Your task to perform on an android device: empty trash in google photos Image 0: 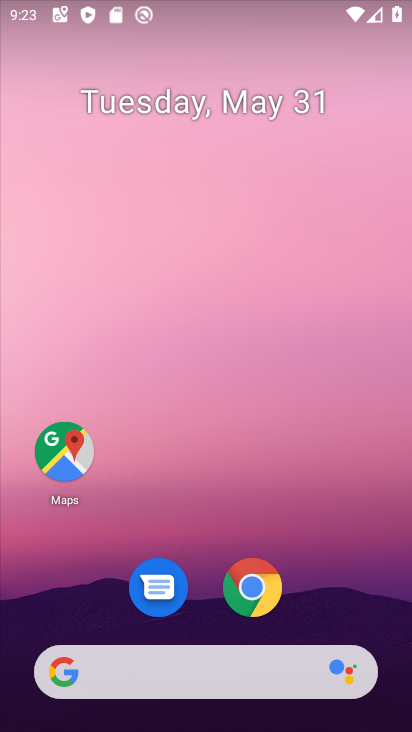
Step 0: drag from (321, 594) to (300, 21)
Your task to perform on an android device: empty trash in google photos Image 1: 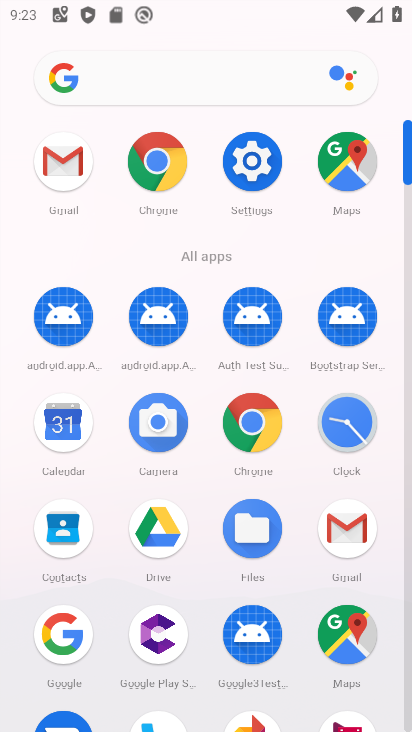
Step 1: drag from (188, 207) to (224, 8)
Your task to perform on an android device: empty trash in google photos Image 2: 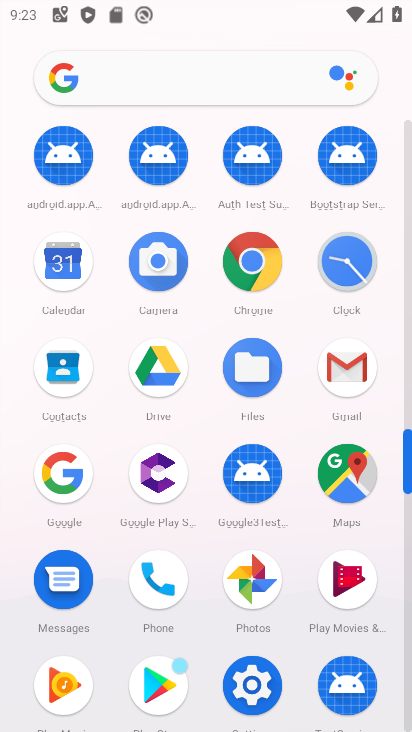
Step 2: click (248, 573)
Your task to perform on an android device: empty trash in google photos Image 3: 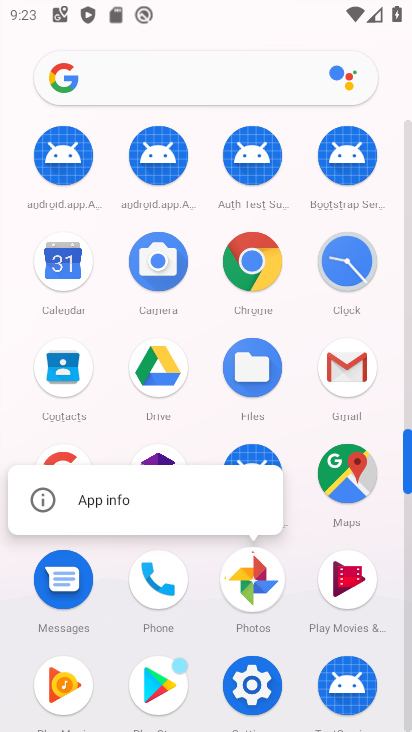
Step 3: click (248, 573)
Your task to perform on an android device: empty trash in google photos Image 4: 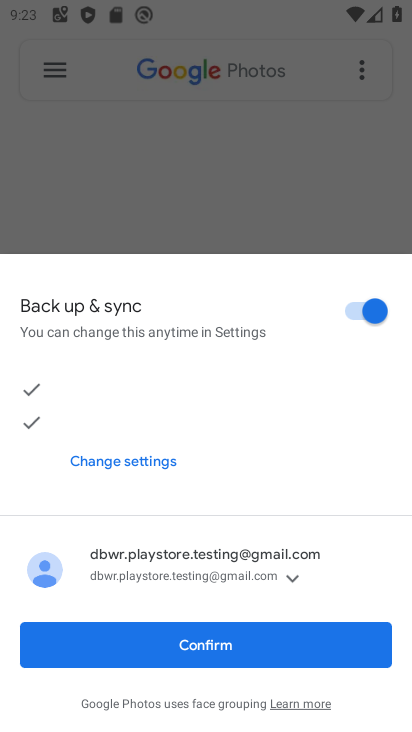
Step 4: click (53, 75)
Your task to perform on an android device: empty trash in google photos Image 5: 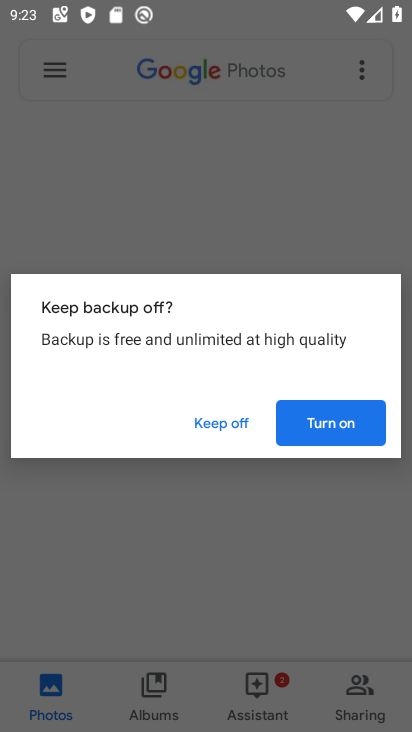
Step 5: click (239, 232)
Your task to perform on an android device: empty trash in google photos Image 6: 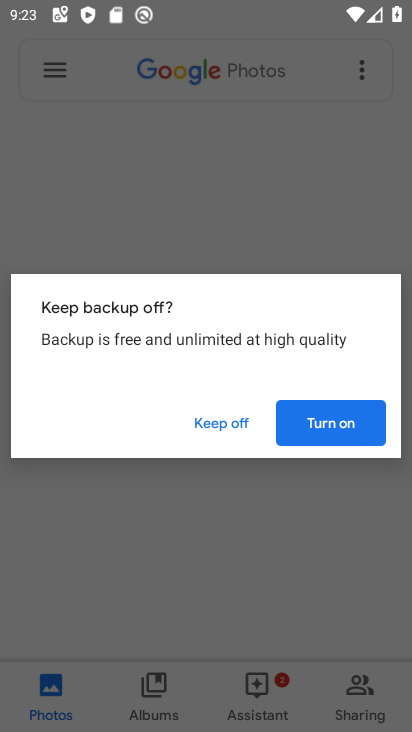
Step 6: click (313, 414)
Your task to perform on an android device: empty trash in google photos Image 7: 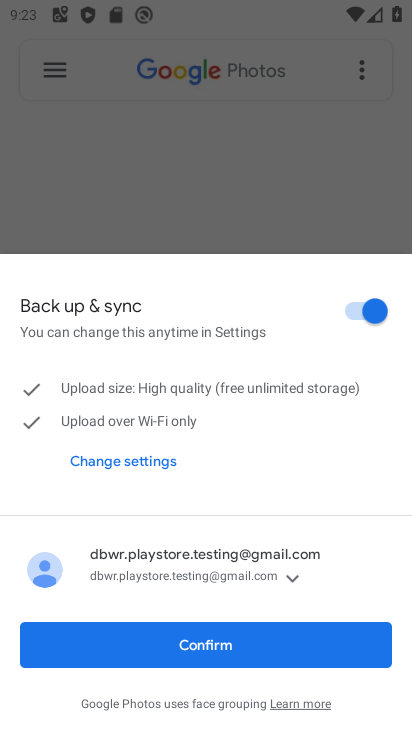
Step 7: click (199, 626)
Your task to perform on an android device: empty trash in google photos Image 8: 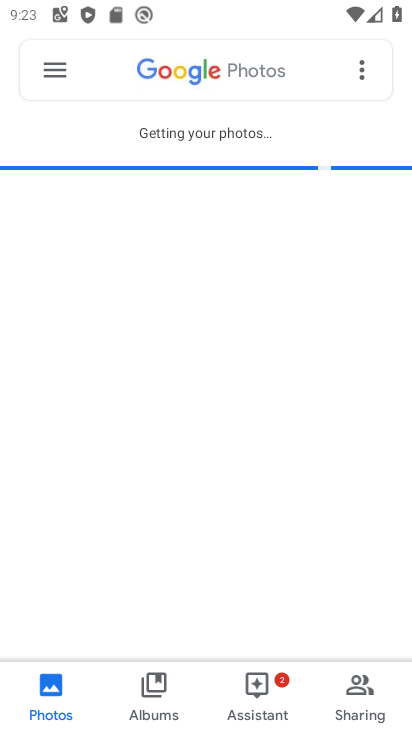
Step 8: click (53, 61)
Your task to perform on an android device: empty trash in google photos Image 9: 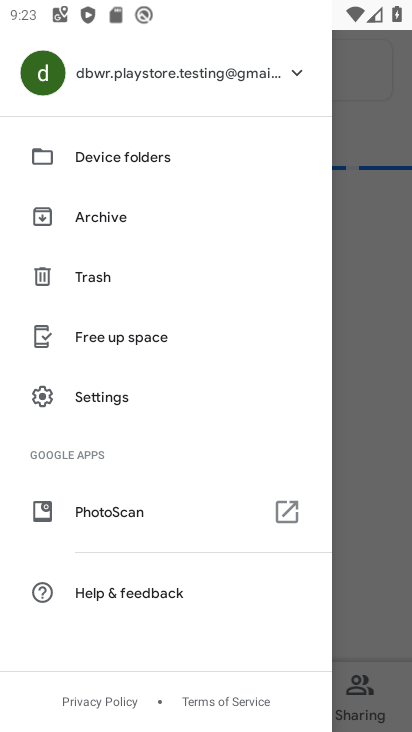
Step 9: drag from (153, 547) to (150, 409)
Your task to perform on an android device: empty trash in google photos Image 10: 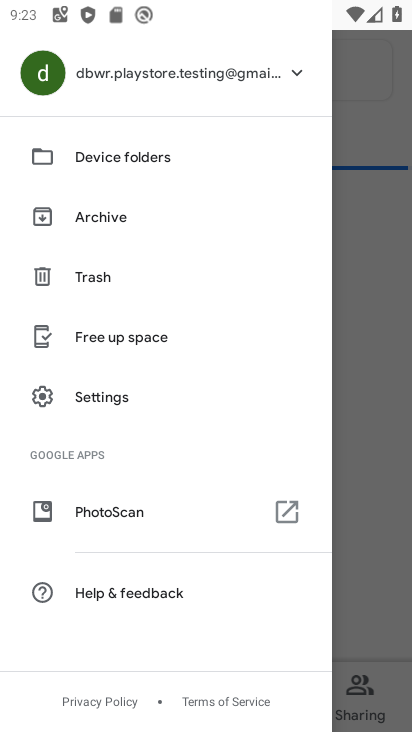
Step 10: click (72, 266)
Your task to perform on an android device: empty trash in google photos Image 11: 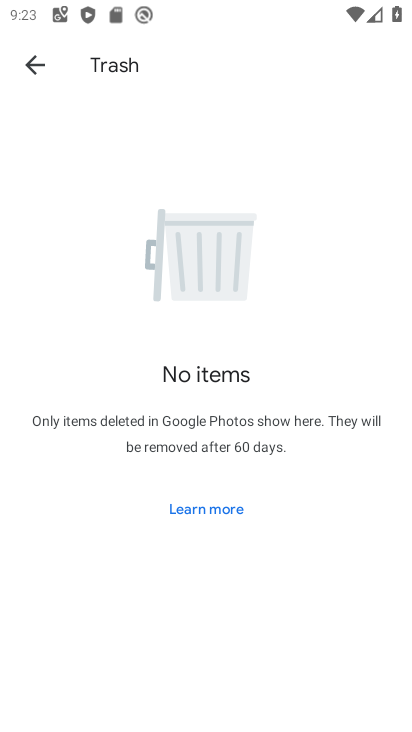
Step 11: task complete